Your task to perform on an android device: toggle pop-ups in chrome Image 0: 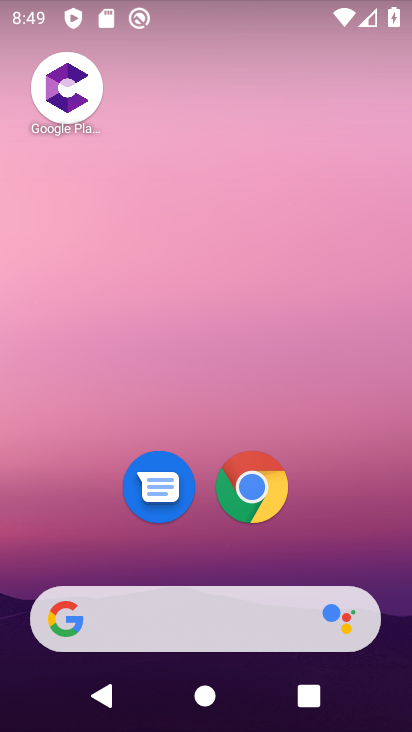
Step 0: click (251, 483)
Your task to perform on an android device: toggle pop-ups in chrome Image 1: 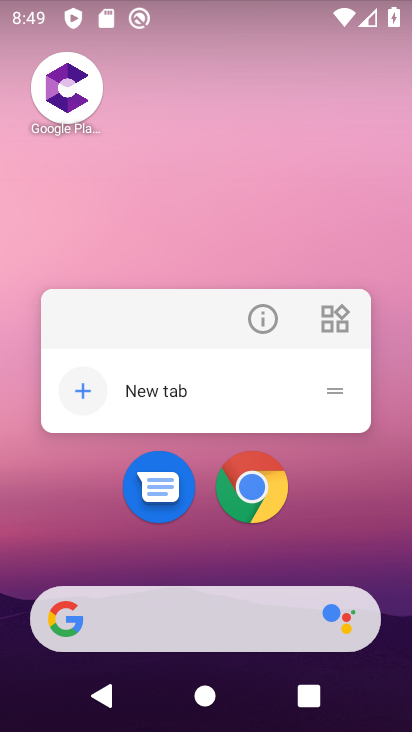
Step 1: click (252, 498)
Your task to perform on an android device: toggle pop-ups in chrome Image 2: 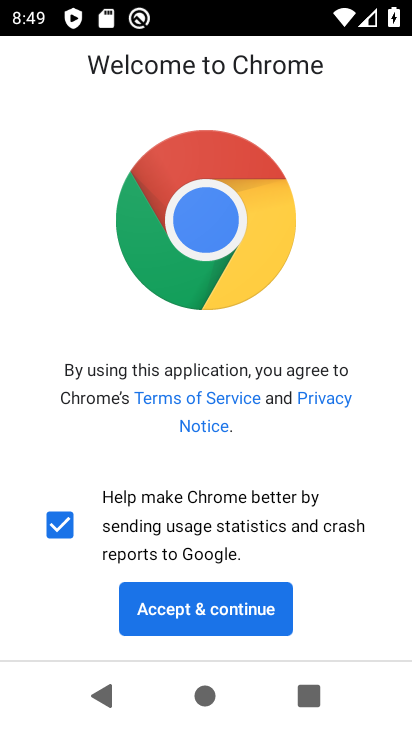
Step 2: click (186, 605)
Your task to perform on an android device: toggle pop-ups in chrome Image 3: 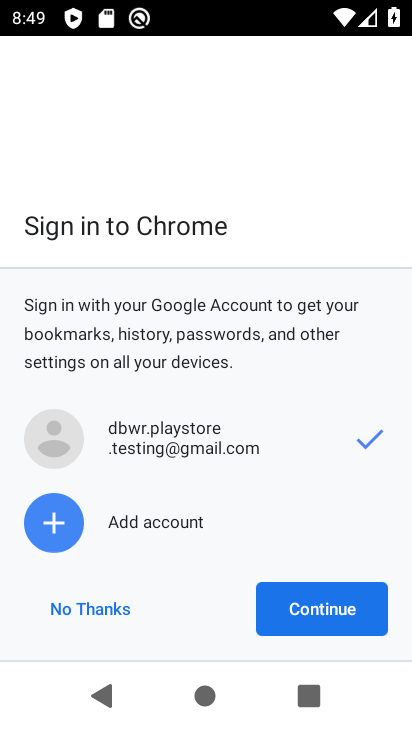
Step 3: click (331, 614)
Your task to perform on an android device: toggle pop-ups in chrome Image 4: 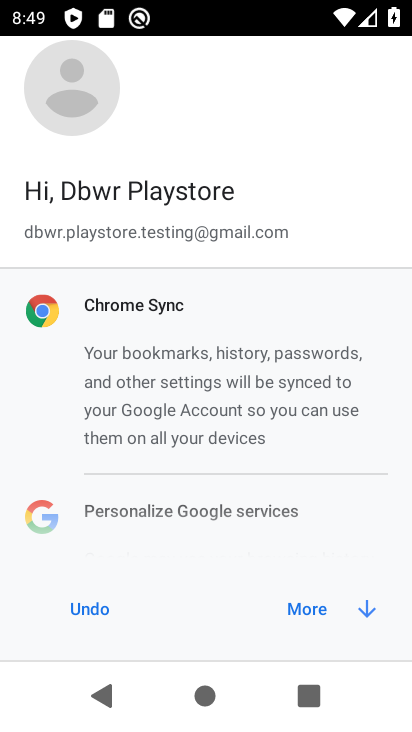
Step 4: click (325, 607)
Your task to perform on an android device: toggle pop-ups in chrome Image 5: 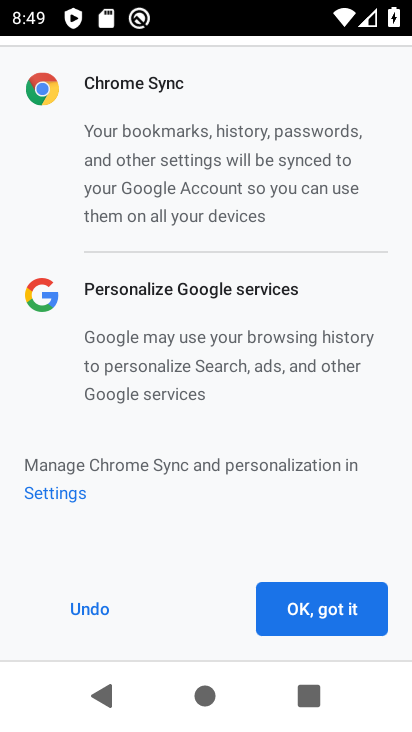
Step 5: click (325, 607)
Your task to perform on an android device: toggle pop-ups in chrome Image 6: 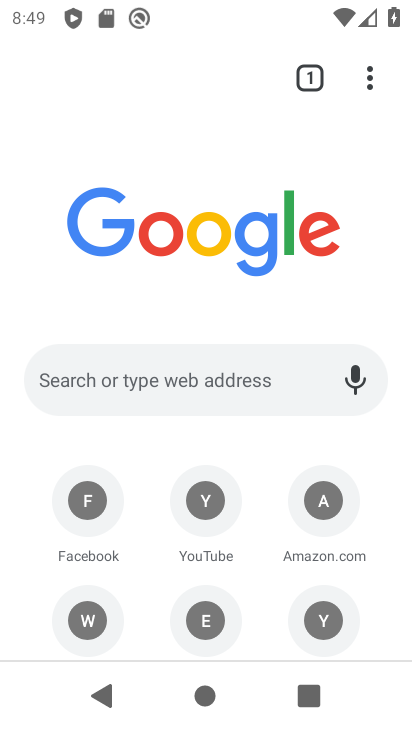
Step 6: drag from (371, 85) to (105, 547)
Your task to perform on an android device: toggle pop-ups in chrome Image 7: 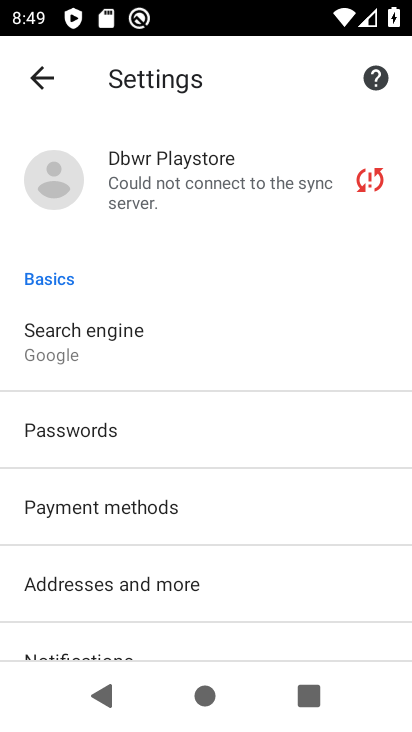
Step 7: drag from (184, 567) to (264, 95)
Your task to perform on an android device: toggle pop-ups in chrome Image 8: 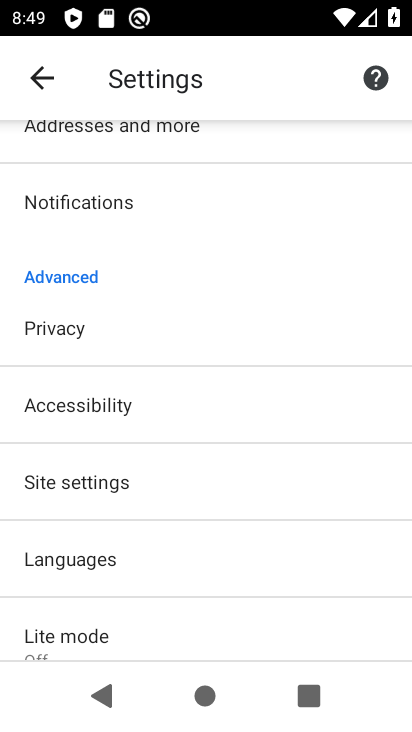
Step 8: click (125, 467)
Your task to perform on an android device: toggle pop-ups in chrome Image 9: 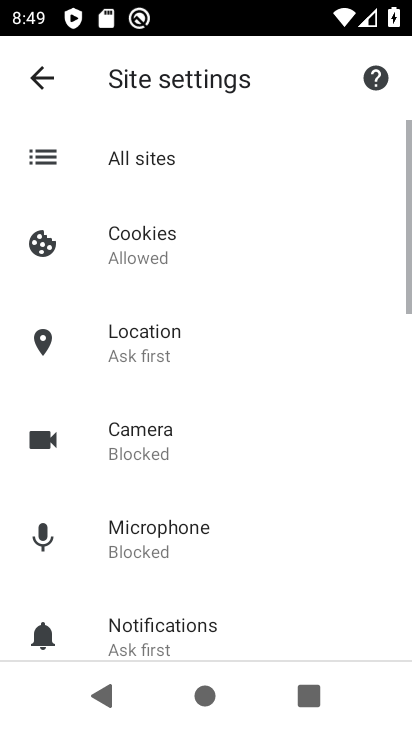
Step 9: drag from (170, 588) to (226, 172)
Your task to perform on an android device: toggle pop-ups in chrome Image 10: 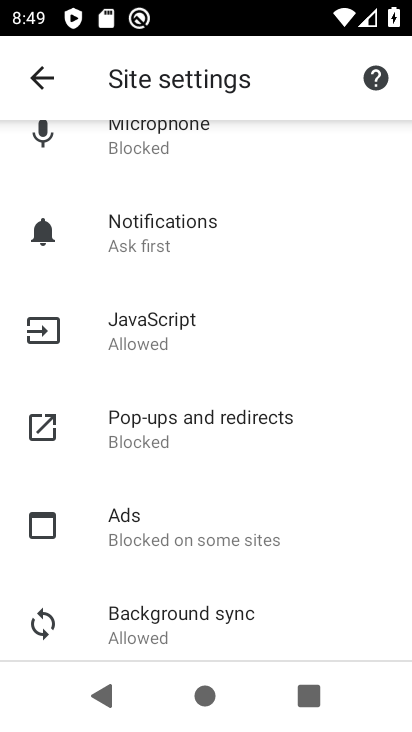
Step 10: click (159, 429)
Your task to perform on an android device: toggle pop-ups in chrome Image 11: 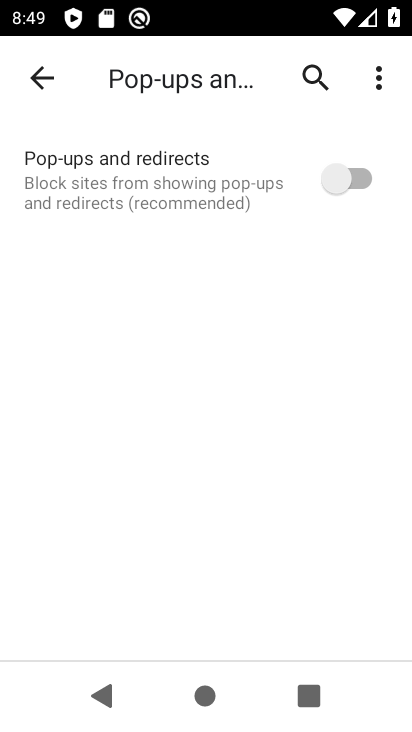
Step 11: click (348, 182)
Your task to perform on an android device: toggle pop-ups in chrome Image 12: 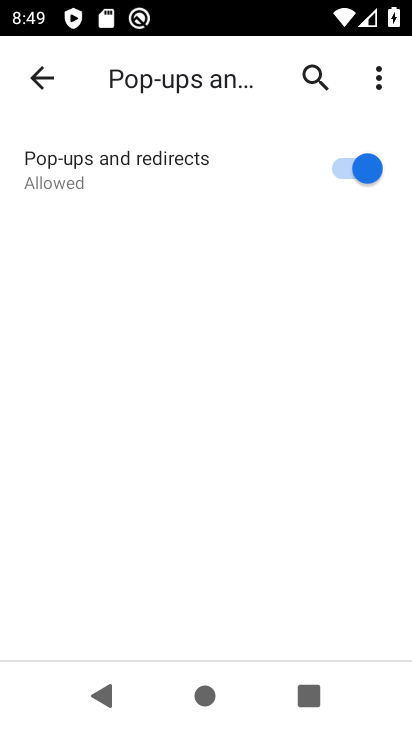
Step 12: task complete